Your task to perform on an android device: When is my next meeting? Image 0: 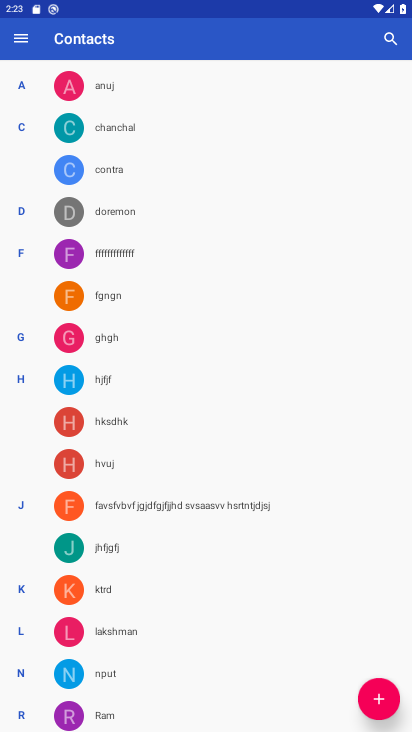
Step 0: press home button
Your task to perform on an android device: When is my next meeting? Image 1: 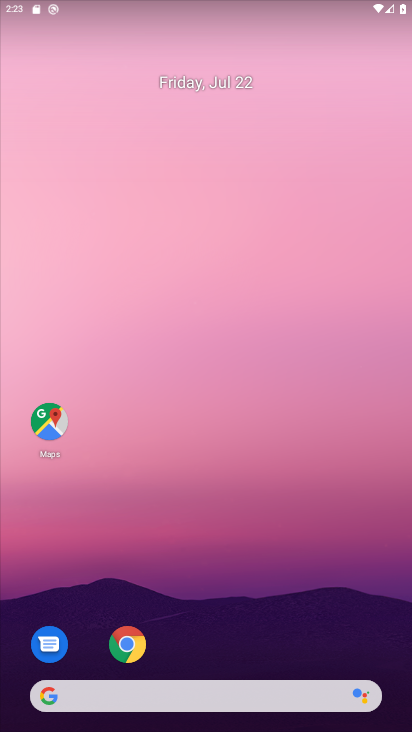
Step 1: drag from (135, 636) to (300, 16)
Your task to perform on an android device: When is my next meeting? Image 2: 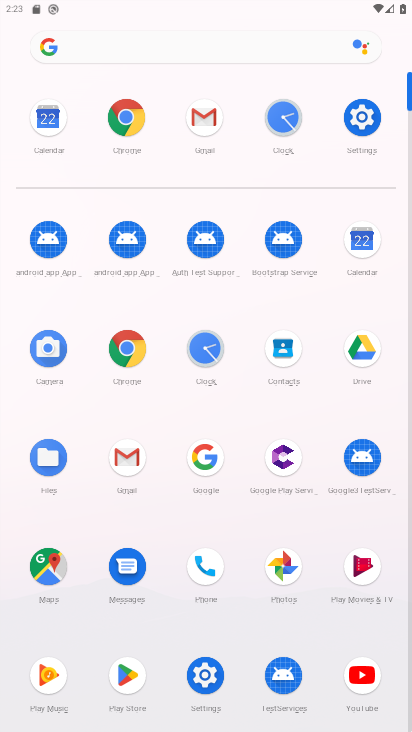
Step 2: click (354, 236)
Your task to perform on an android device: When is my next meeting? Image 3: 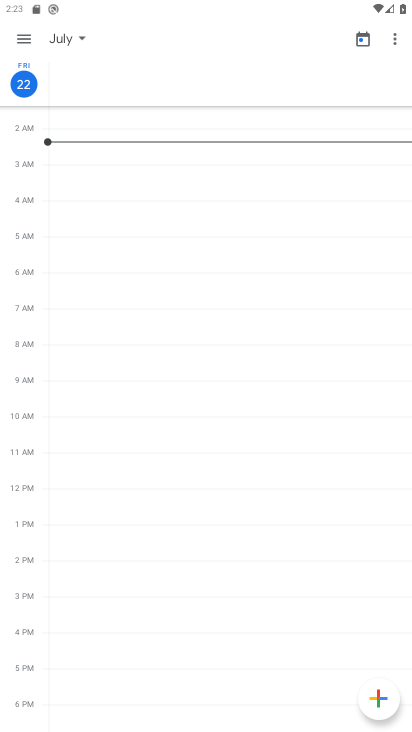
Step 3: click (31, 24)
Your task to perform on an android device: When is my next meeting? Image 4: 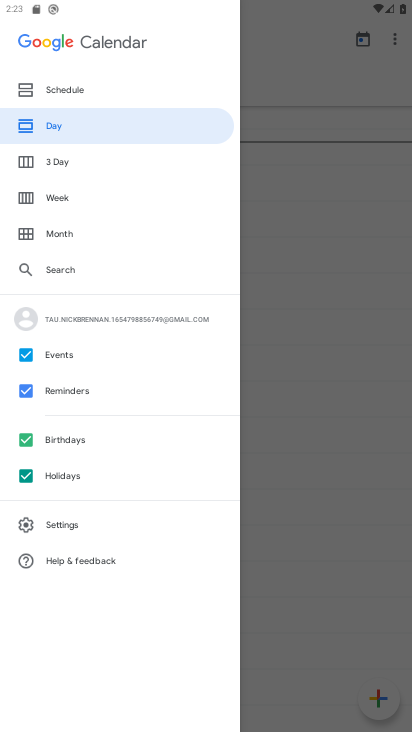
Step 4: click (69, 221)
Your task to perform on an android device: When is my next meeting? Image 5: 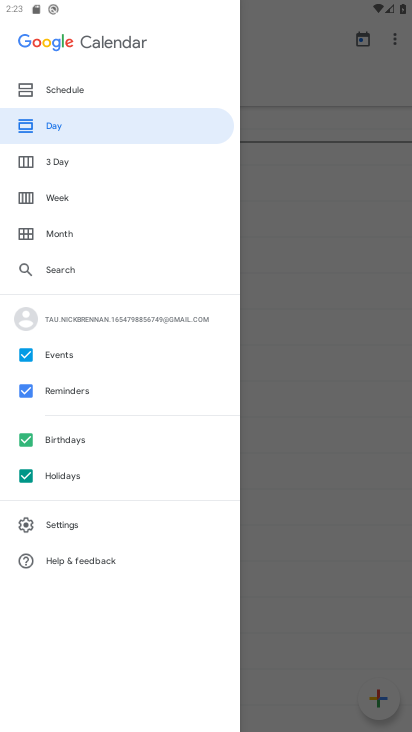
Step 5: click (75, 232)
Your task to perform on an android device: When is my next meeting? Image 6: 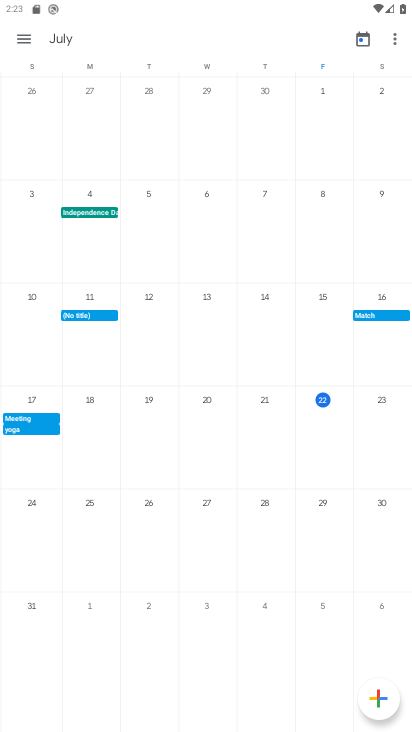
Step 6: click (382, 401)
Your task to perform on an android device: When is my next meeting? Image 7: 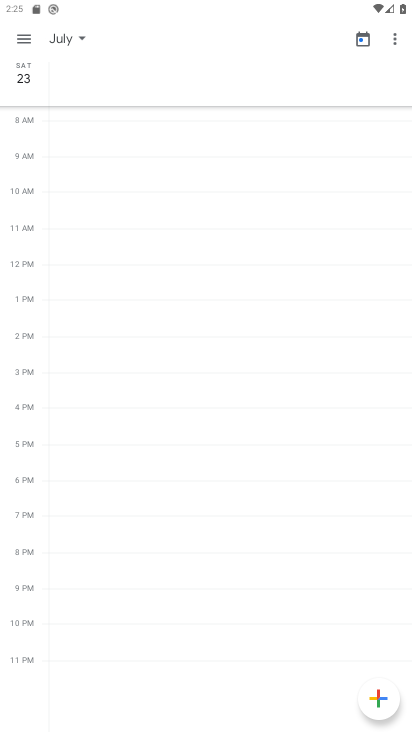
Step 7: task complete